Your task to perform on an android device: manage bookmarks in the chrome app Image 0: 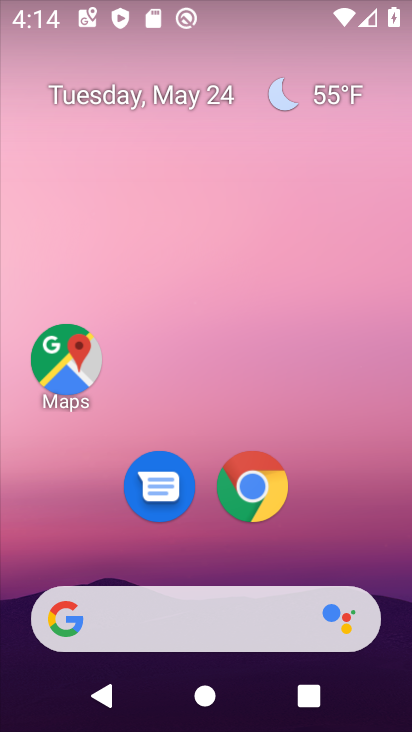
Step 0: click (256, 485)
Your task to perform on an android device: manage bookmarks in the chrome app Image 1: 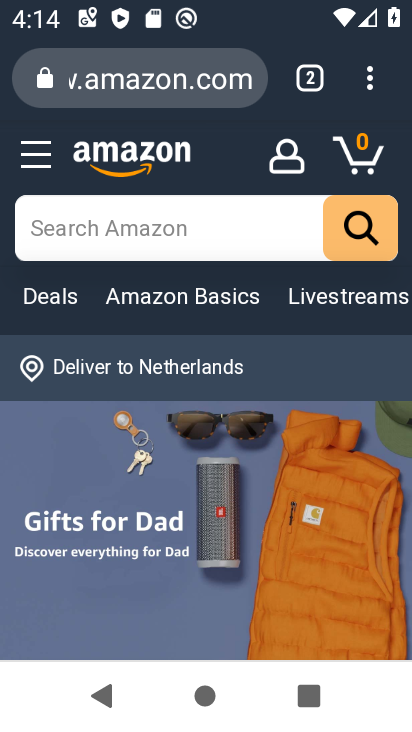
Step 1: click (364, 75)
Your task to perform on an android device: manage bookmarks in the chrome app Image 2: 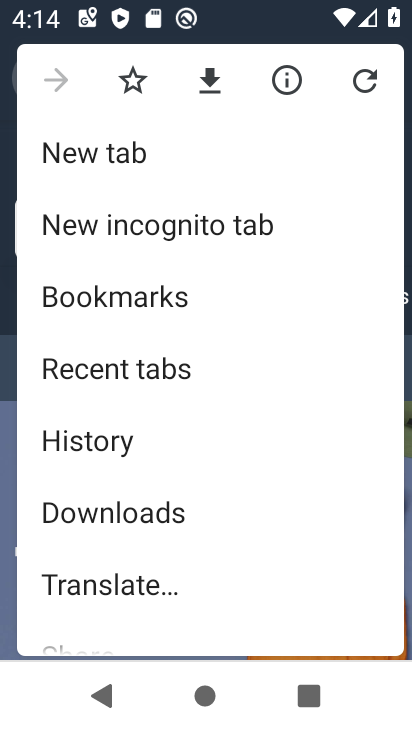
Step 2: click (176, 284)
Your task to perform on an android device: manage bookmarks in the chrome app Image 3: 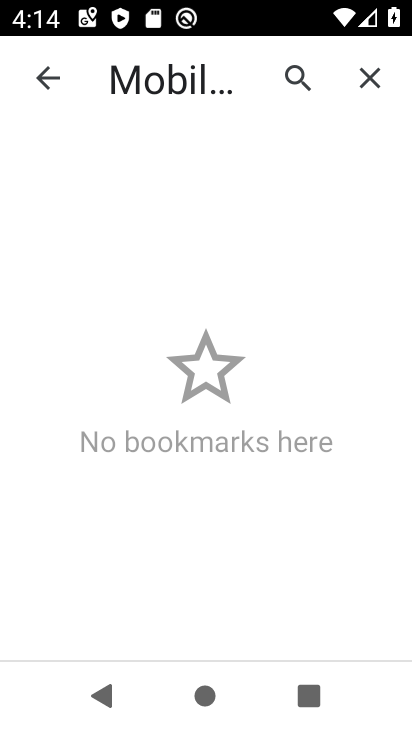
Step 3: task complete